Your task to perform on an android device: Open Yahoo.com Image 0: 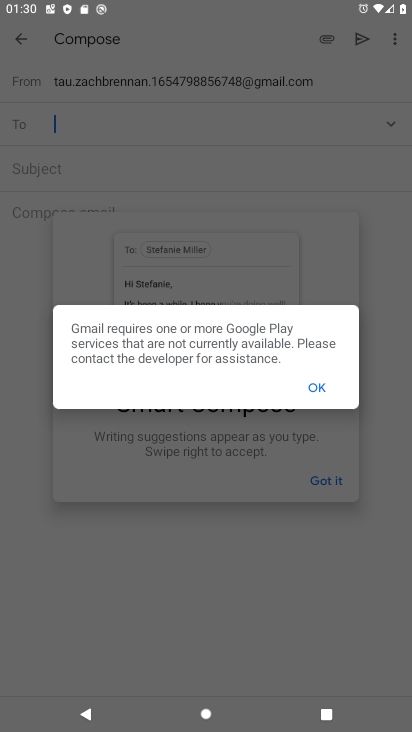
Step 0: press home button
Your task to perform on an android device: Open Yahoo.com Image 1: 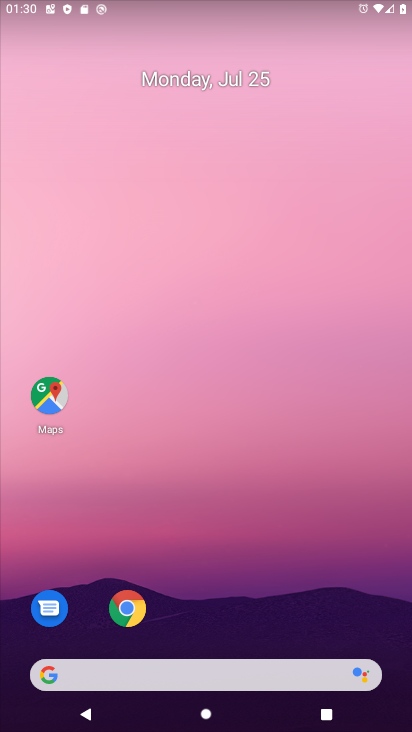
Step 1: click (127, 625)
Your task to perform on an android device: Open Yahoo.com Image 2: 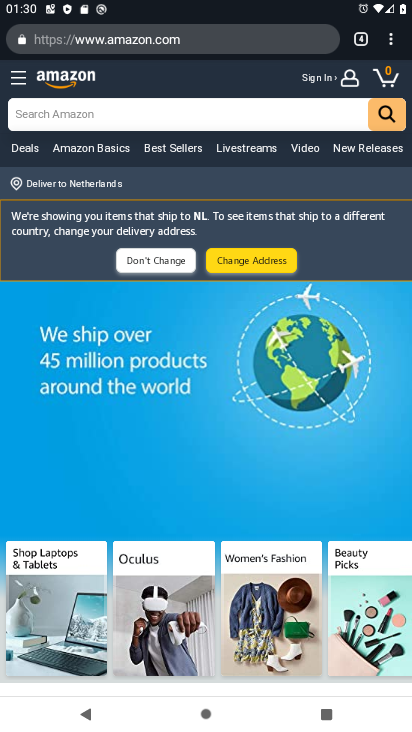
Step 2: click (372, 38)
Your task to perform on an android device: Open Yahoo.com Image 3: 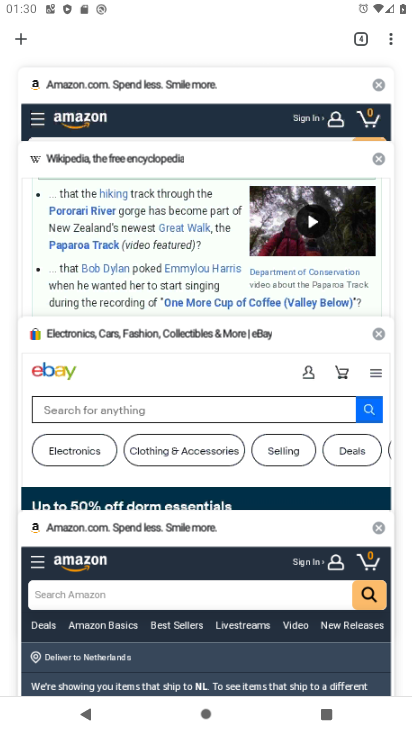
Step 3: click (16, 36)
Your task to perform on an android device: Open Yahoo.com Image 4: 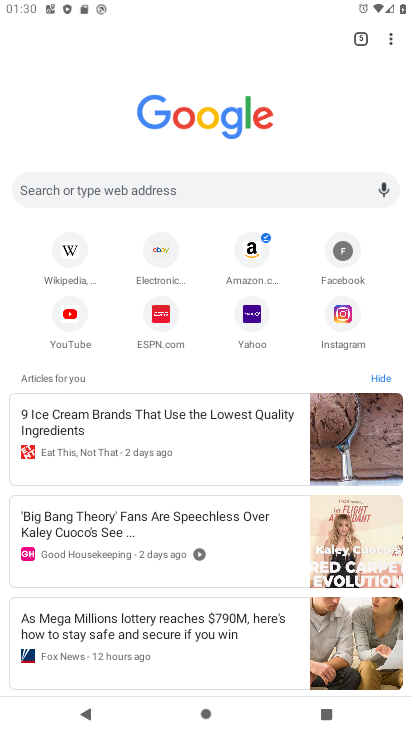
Step 4: click (239, 307)
Your task to perform on an android device: Open Yahoo.com Image 5: 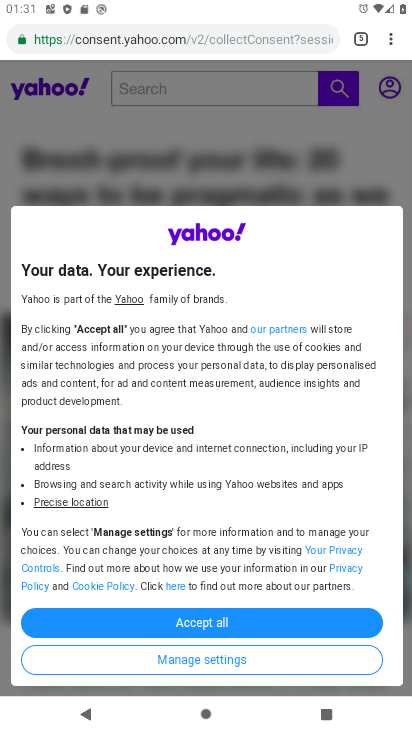
Step 5: task complete